Your task to perform on an android device: turn off priority inbox in the gmail app Image 0: 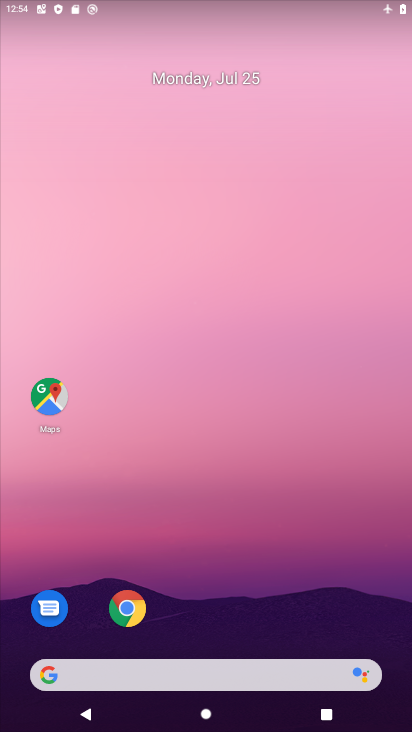
Step 0: drag from (271, 650) to (279, 15)
Your task to perform on an android device: turn off priority inbox in the gmail app Image 1: 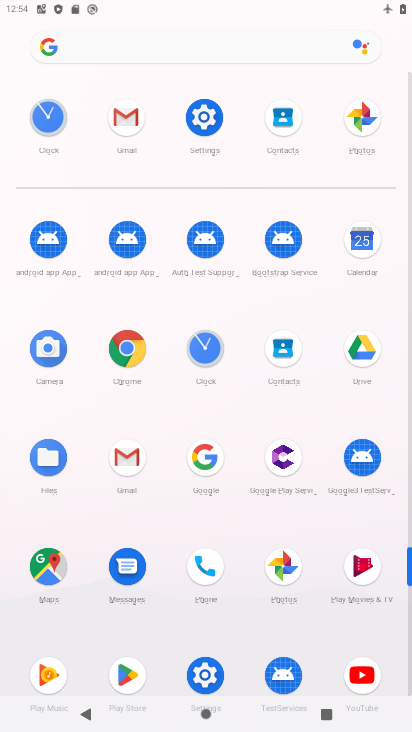
Step 1: click (119, 118)
Your task to perform on an android device: turn off priority inbox in the gmail app Image 2: 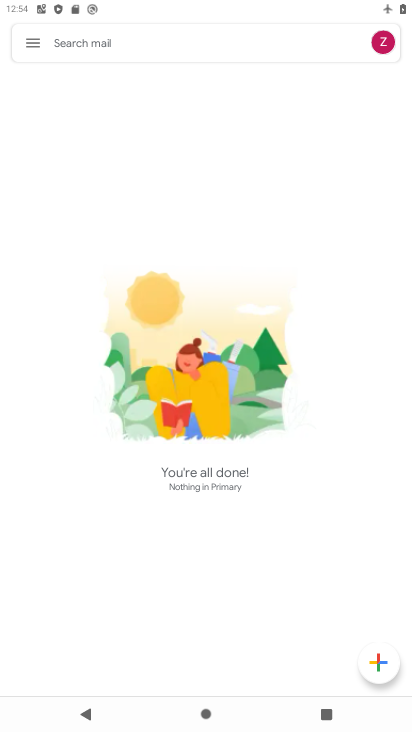
Step 2: click (39, 42)
Your task to perform on an android device: turn off priority inbox in the gmail app Image 3: 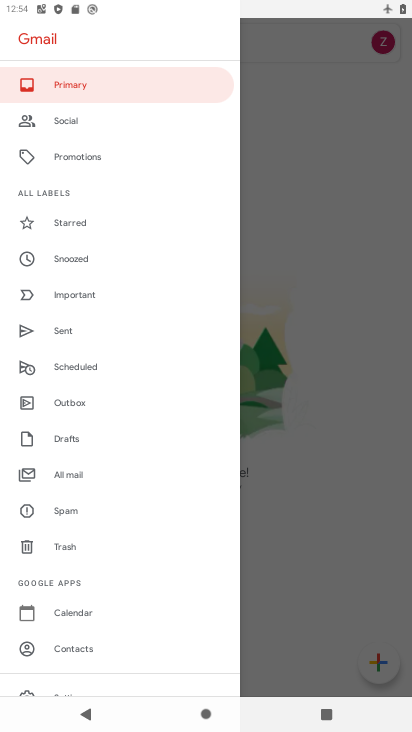
Step 3: drag from (71, 639) to (97, 424)
Your task to perform on an android device: turn off priority inbox in the gmail app Image 4: 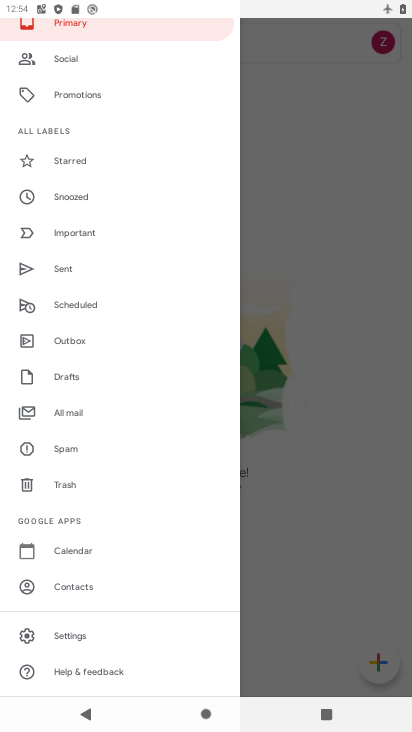
Step 4: click (43, 640)
Your task to perform on an android device: turn off priority inbox in the gmail app Image 5: 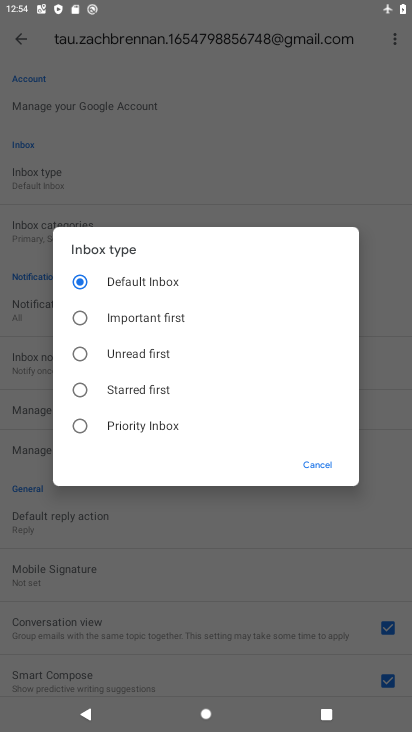
Step 5: task complete